Your task to perform on an android device: Go to internet settings Image 0: 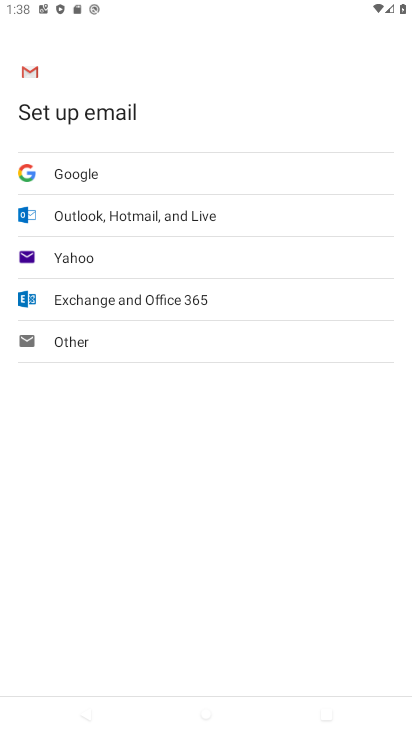
Step 0: press home button
Your task to perform on an android device: Go to internet settings Image 1: 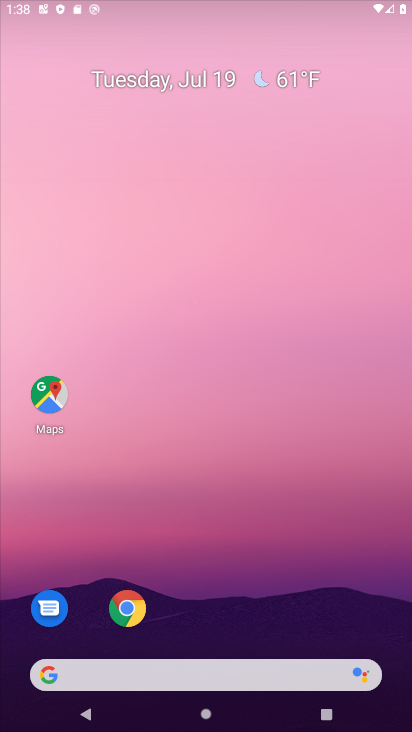
Step 1: drag from (215, 550) to (280, 18)
Your task to perform on an android device: Go to internet settings Image 2: 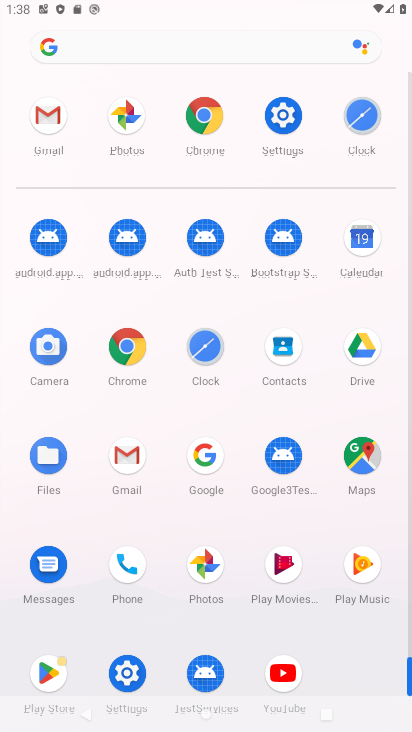
Step 2: click (293, 108)
Your task to perform on an android device: Go to internet settings Image 3: 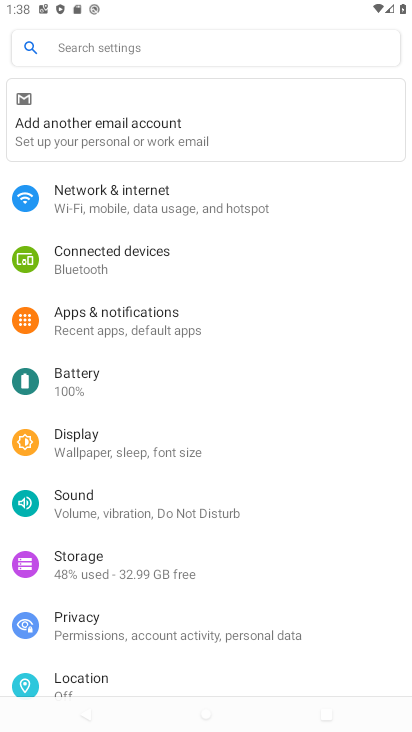
Step 3: click (119, 212)
Your task to perform on an android device: Go to internet settings Image 4: 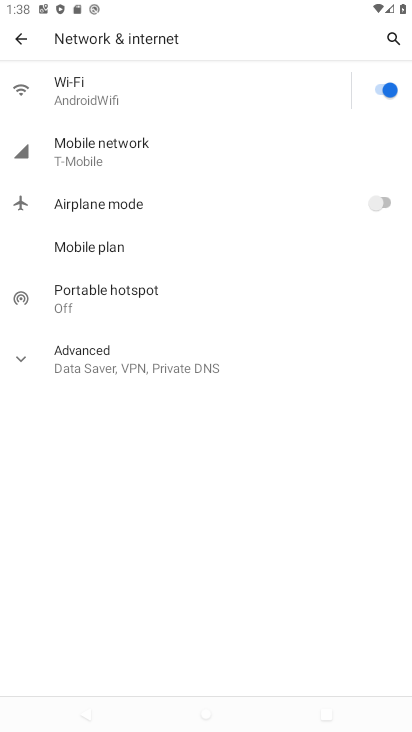
Step 4: task complete